Your task to perform on an android device: open chrome and create a bookmark for the current page Image 0: 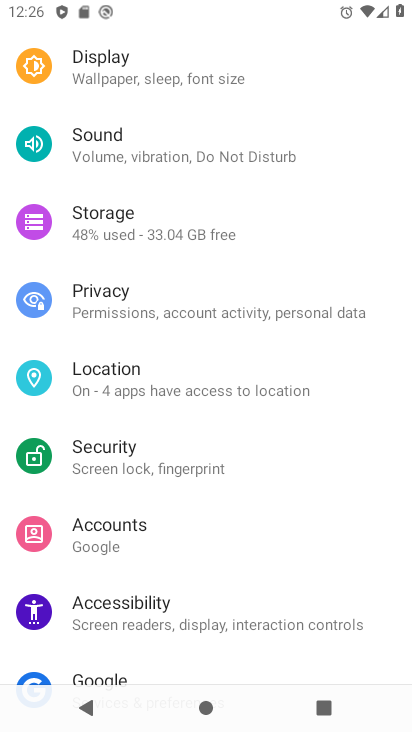
Step 0: press home button
Your task to perform on an android device: open chrome and create a bookmark for the current page Image 1: 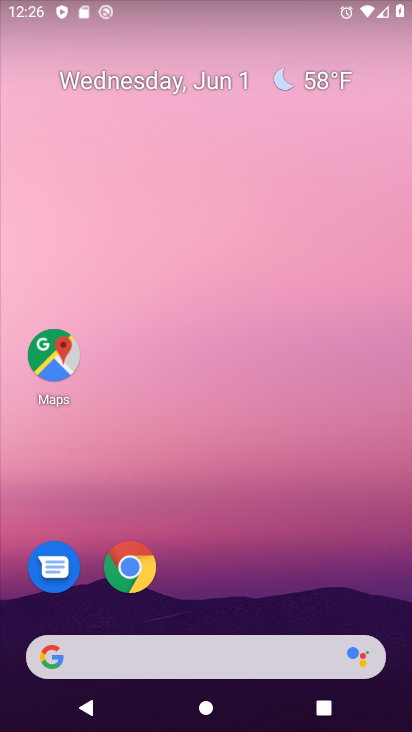
Step 1: click (132, 566)
Your task to perform on an android device: open chrome and create a bookmark for the current page Image 2: 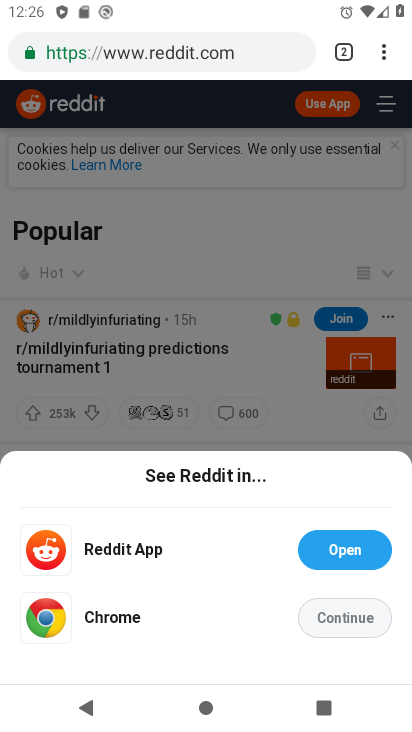
Step 2: click (378, 53)
Your task to perform on an android device: open chrome and create a bookmark for the current page Image 3: 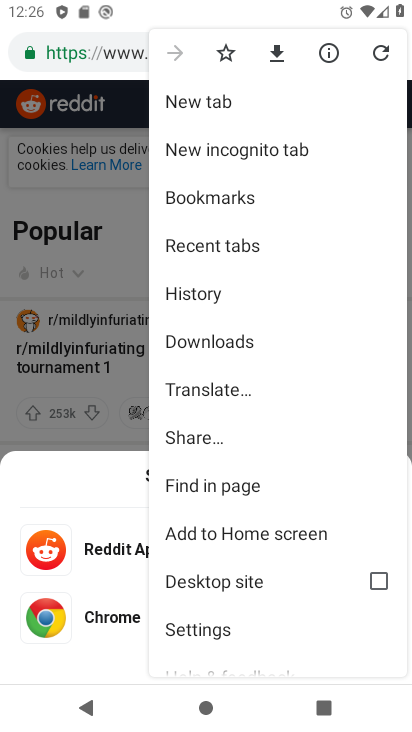
Step 3: click (220, 51)
Your task to perform on an android device: open chrome and create a bookmark for the current page Image 4: 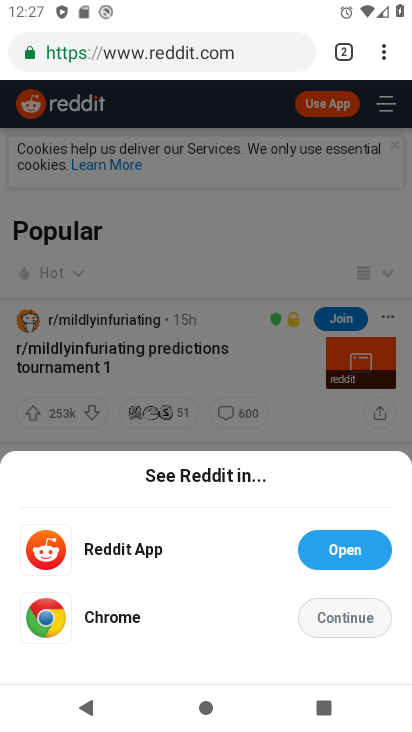
Step 4: task complete